Your task to perform on an android device: Open my contact list Image 0: 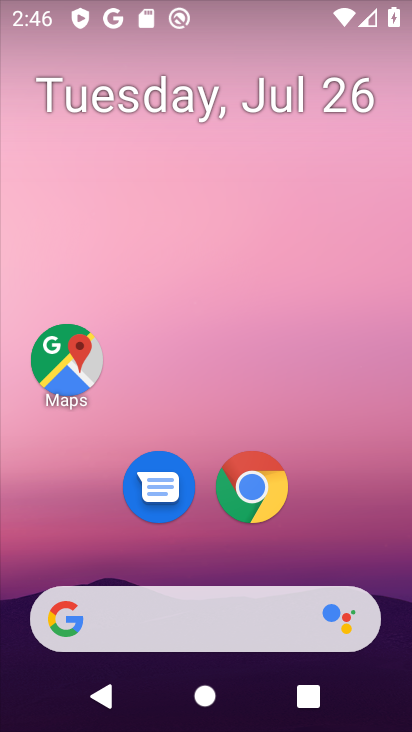
Step 0: drag from (188, 505) to (135, 414)
Your task to perform on an android device: Open my contact list Image 1: 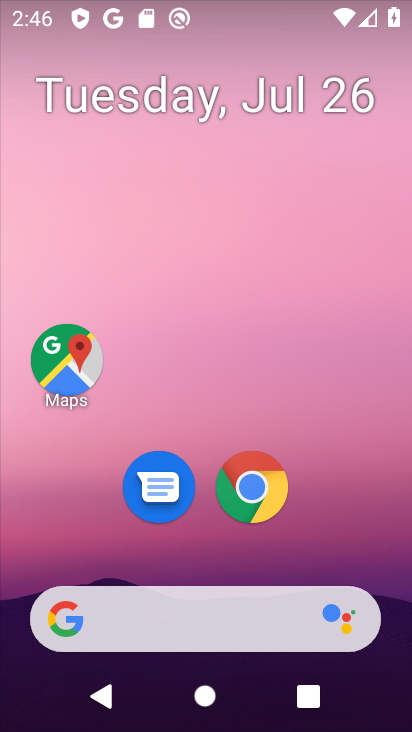
Step 1: drag from (106, 552) to (201, 25)
Your task to perform on an android device: Open my contact list Image 2: 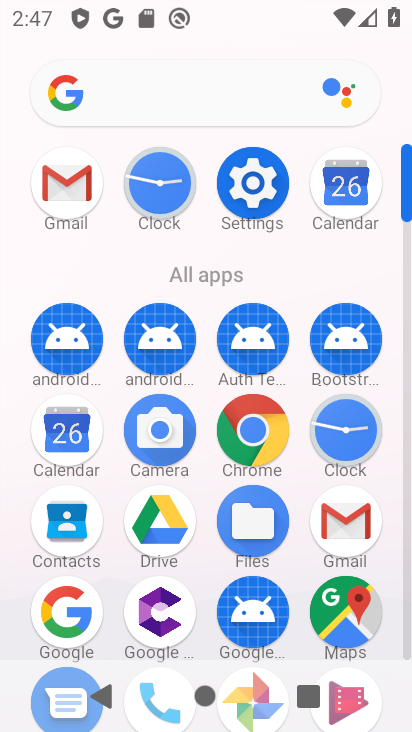
Step 2: click (62, 522)
Your task to perform on an android device: Open my contact list Image 3: 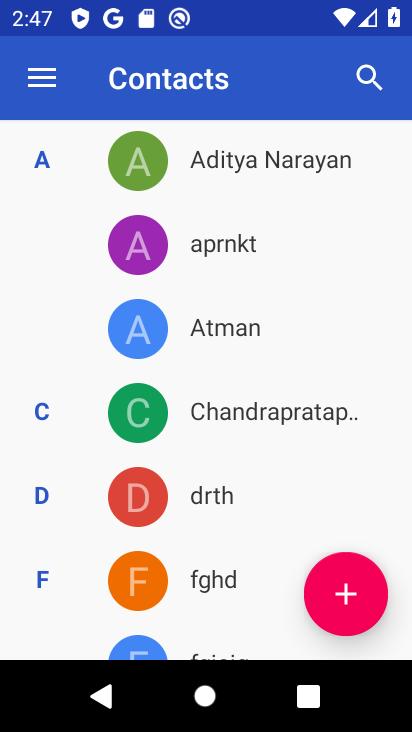
Step 3: task complete